Your task to perform on an android device: Open ESPN.com Image 0: 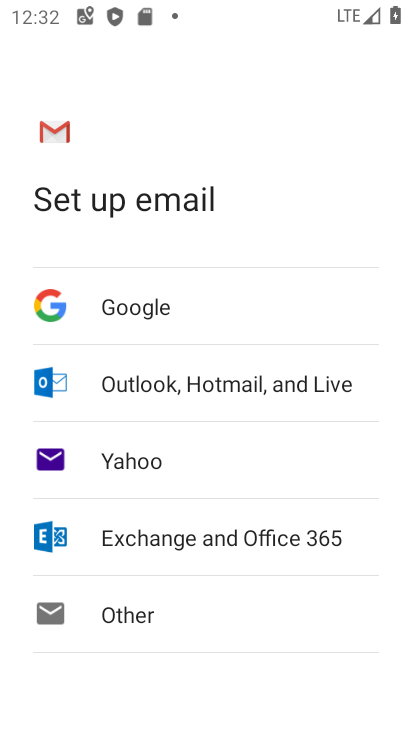
Step 0: press home button
Your task to perform on an android device: Open ESPN.com Image 1: 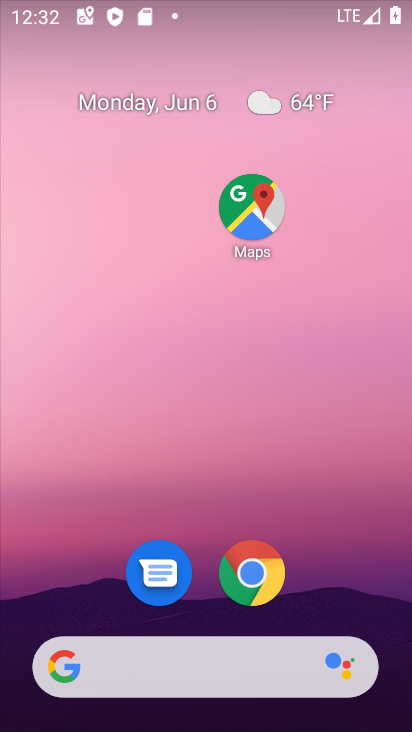
Step 1: click (118, 2)
Your task to perform on an android device: Open ESPN.com Image 2: 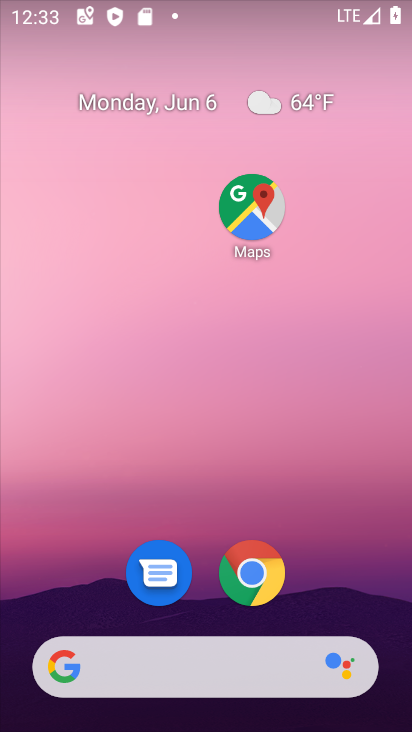
Step 2: drag from (229, 505) to (135, 40)
Your task to perform on an android device: Open ESPN.com Image 3: 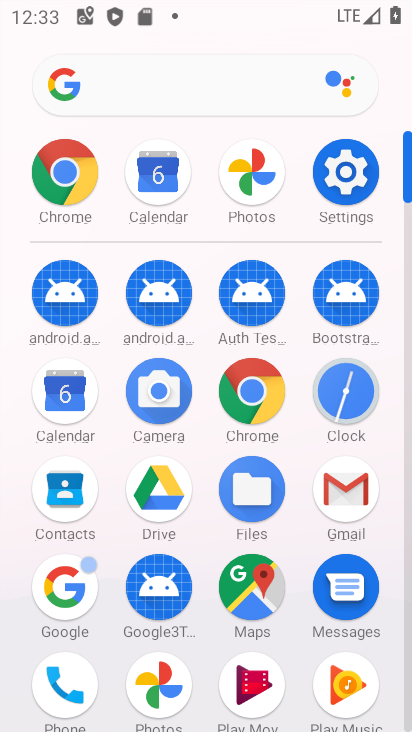
Step 3: click (270, 410)
Your task to perform on an android device: Open ESPN.com Image 4: 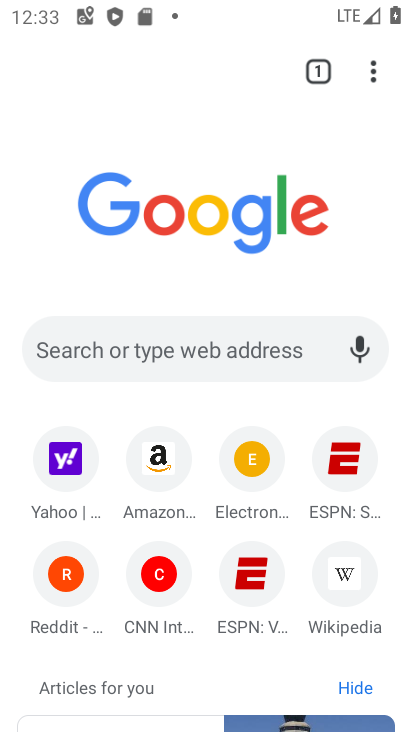
Step 4: click (335, 486)
Your task to perform on an android device: Open ESPN.com Image 5: 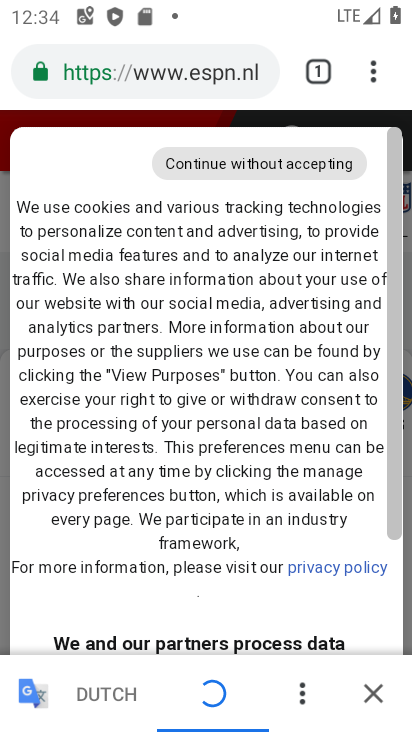
Step 5: task complete